Your task to perform on an android device: Go to Maps Image 0: 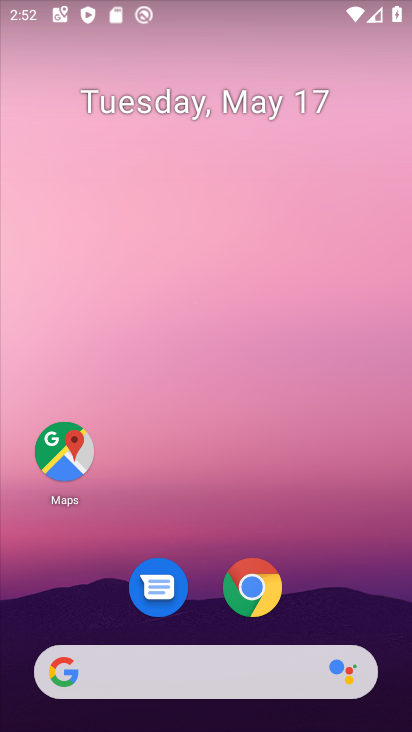
Step 0: drag from (207, 664) to (234, 77)
Your task to perform on an android device: Go to Maps Image 1: 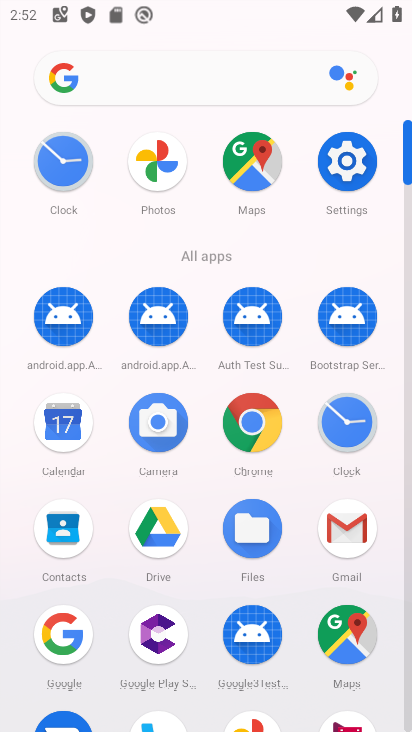
Step 1: click (342, 647)
Your task to perform on an android device: Go to Maps Image 2: 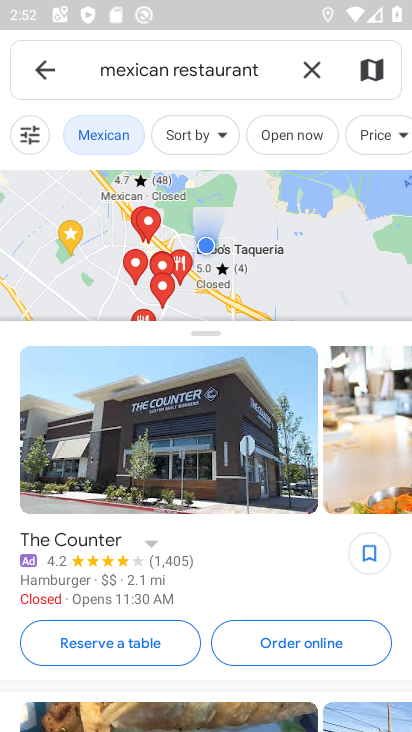
Step 2: task complete